Your task to perform on an android device: Open settings on Google Maps Image 0: 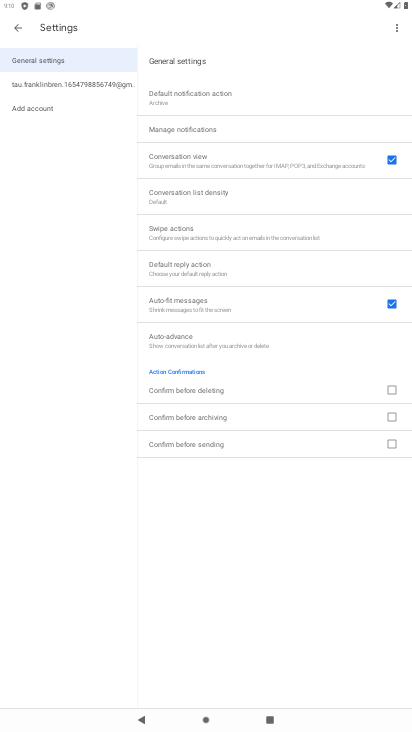
Step 0: press home button
Your task to perform on an android device: Open settings on Google Maps Image 1: 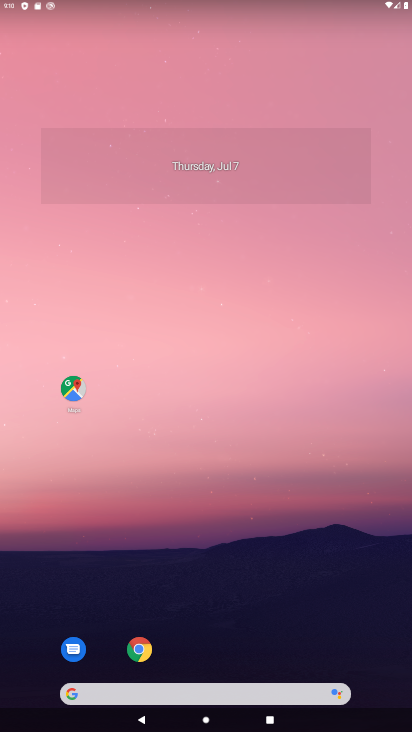
Step 1: drag from (236, 627) to (200, 353)
Your task to perform on an android device: Open settings on Google Maps Image 2: 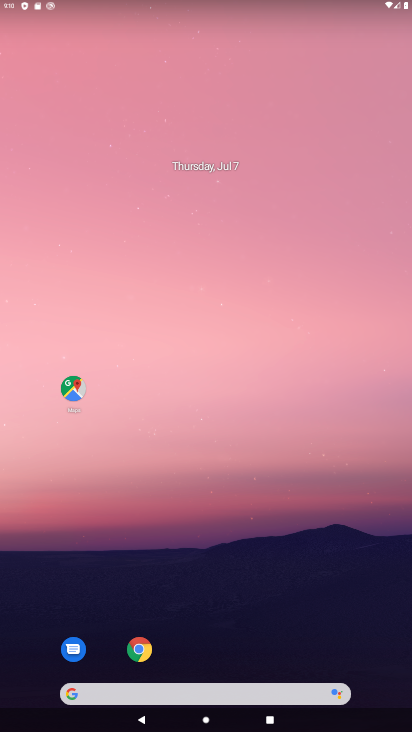
Step 2: drag from (231, 646) to (194, 174)
Your task to perform on an android device: Open settings on Google Maps Image 3: 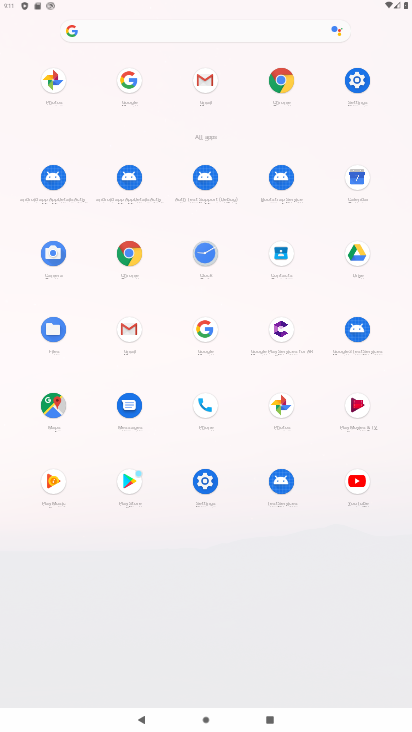
Step 3: click (50, 405)
Your task to perform on an android device: Open settings on Google Maps Image 4: 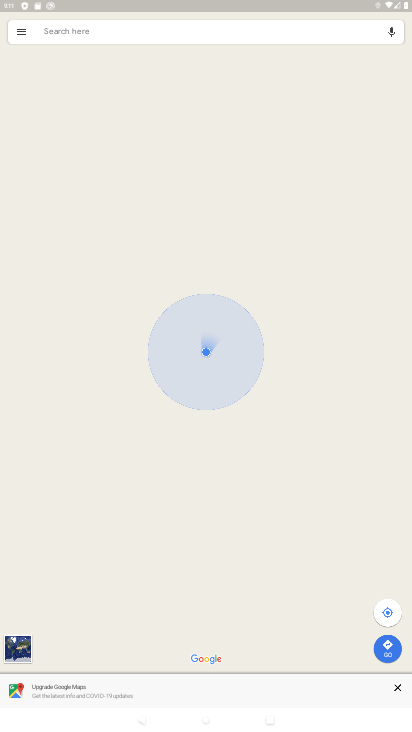
Step 4: click (20, 35)
Your task to perform on an android device: Open settings on Google Maps Image 5: 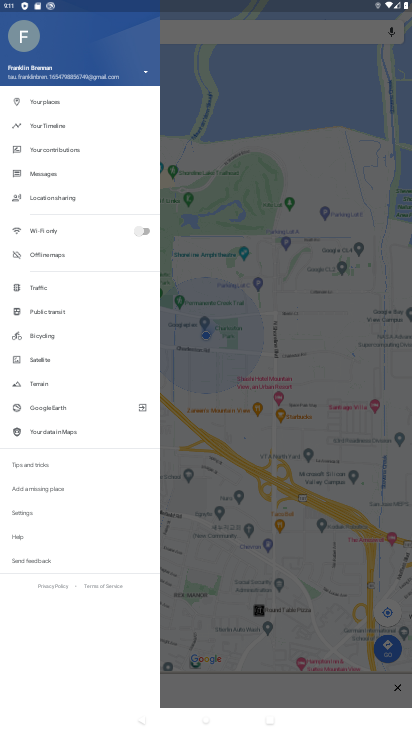
Step 5: click (21, 511)
Your task to perform on an android device: Open settings on Google Maps Image 6: 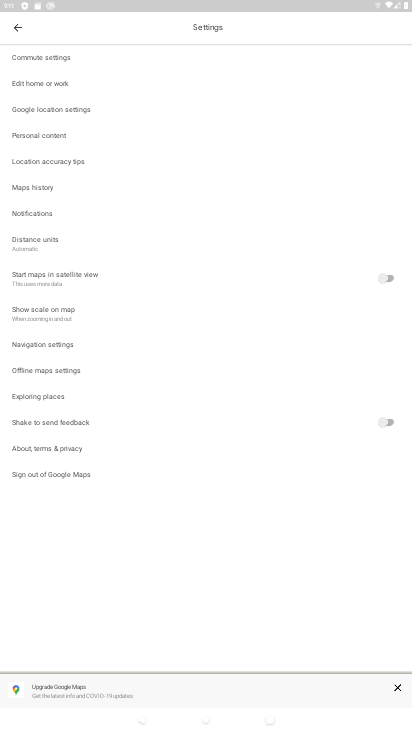
Step 6: task complete